Your task to perform on an android device: turn on the 12-hour format for clock Image 0: 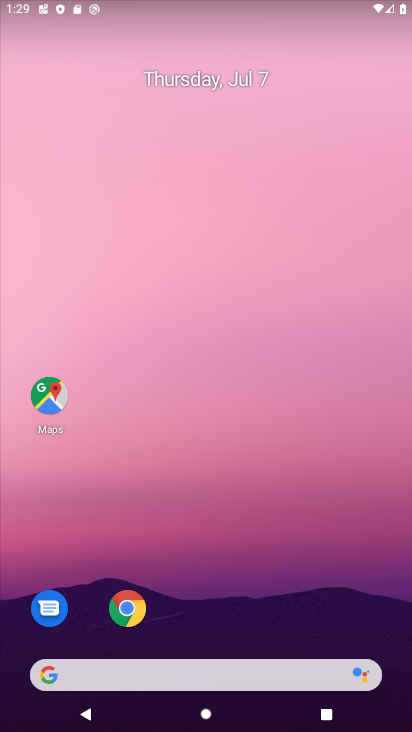
Step 0: drag from (220, 683) to (240, 0)
Your task to perform on an android device: turn on the 12-hour format for clock Image 1: 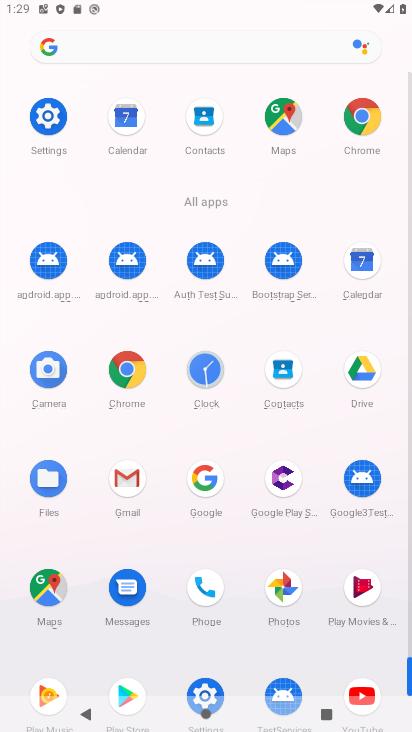
Step 1: click (211, 375)
Your task to perform on an android device: turn on the 12-hour format for clock Image 2: 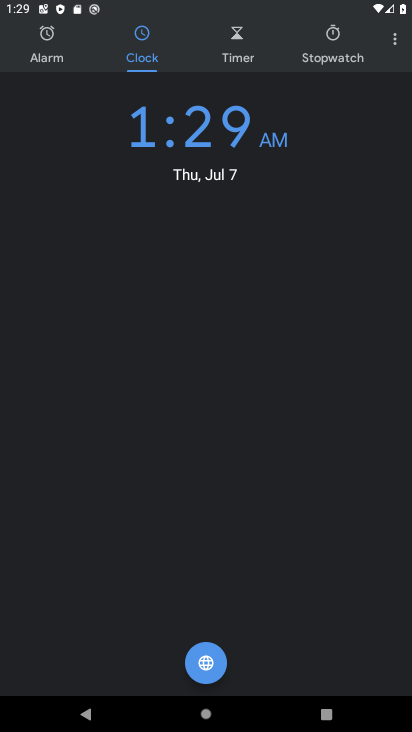
Step 2: click (397, 37)
Your task to perform on an android device: turn on the 12-hour format for clock Image 3: 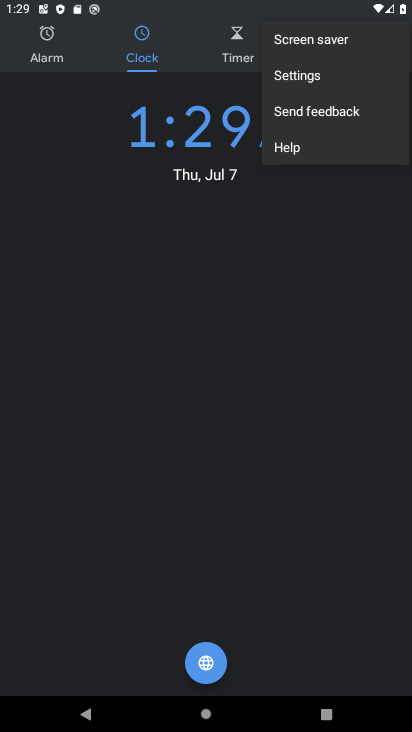
Step 3: click (349, 81)
Your task to perform on an android device: turn on the 12-hour format for clock Image 4: 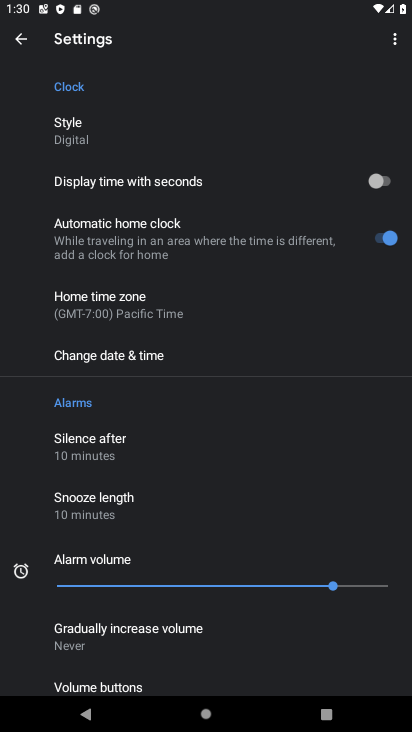
Step 4: drag from (172, 659) to (224, 217)
Your task to perform on an android device: turn on the 12-hour format for clock Image 5: 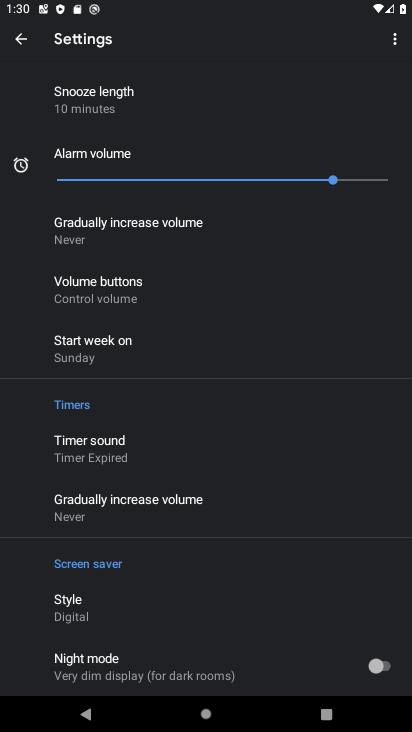
Step 5: drag from (172, 630) to (202, 357)
Your task to perform on an android device: turn on the 12-hour format for clock Image 6: 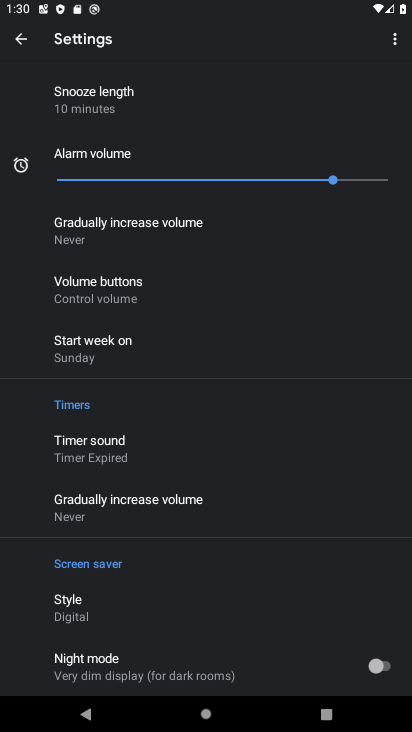
Step 6: drag from (163, 346) to (145, 726)
Your task to perform on an android device: turn on the 12-hour format for clock Image 7: 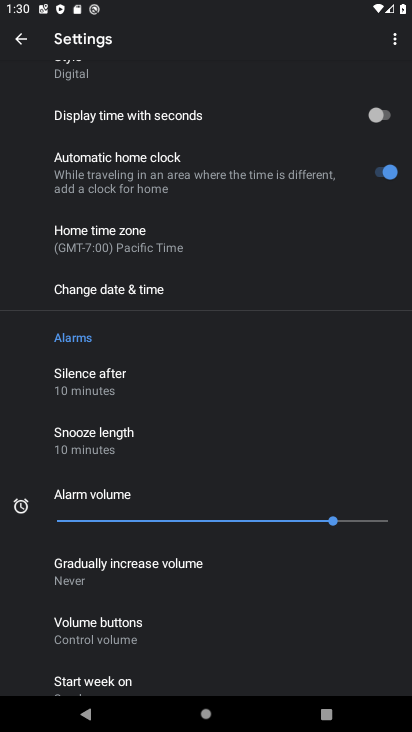
Step 7: click (135, 294)
Your task to perform on an android device: turn on the 12-hour format for clock Image 8: 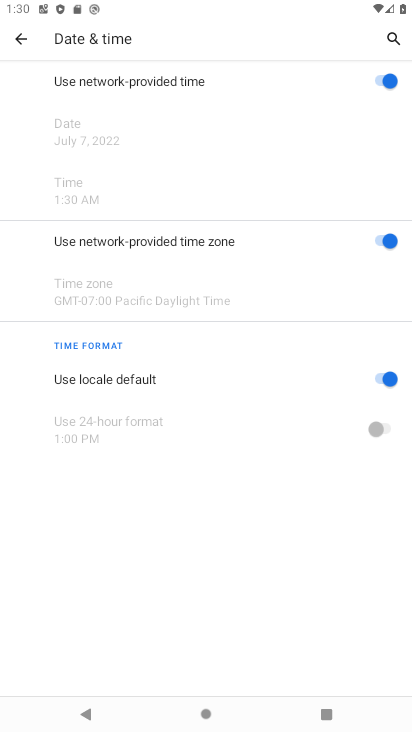
Step 8: click (381, 373)
Your task to perform on an android device: turn on the 12-hour format for clock Image 9: 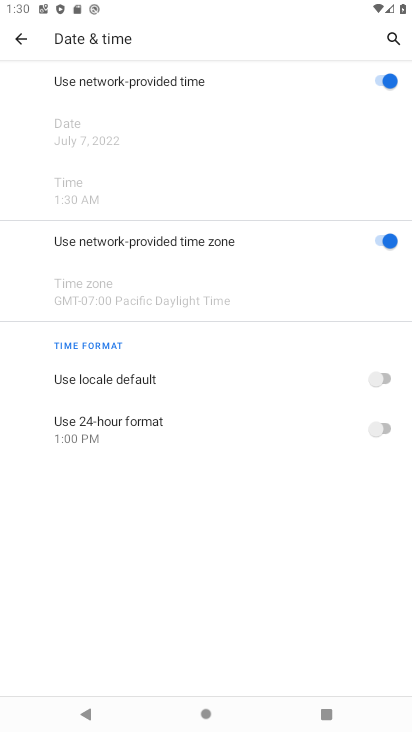
Step 9: task complete